Your task to perform on an android device: turn on priority inbox in the gmail app Image 0: 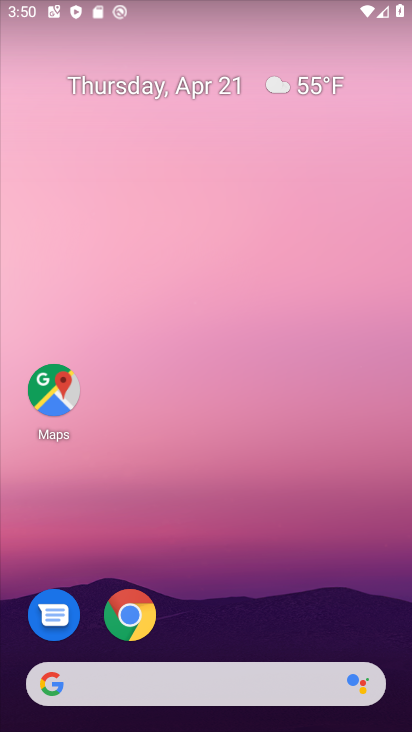
Step 0: drag from (231, 543) to (115, 11)
Your task to perform on an android device: turn on priority inbox in the gmail app Image 1: 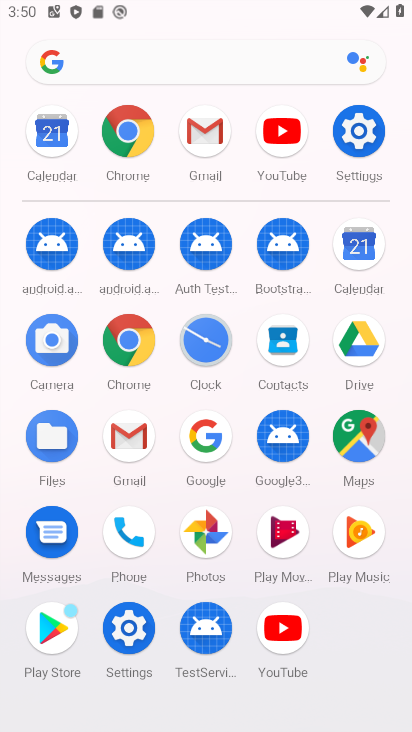
Step 1: click (205, 124)
Your task to perform on an android device: turn on priority inbox in the gmail app Image 2: 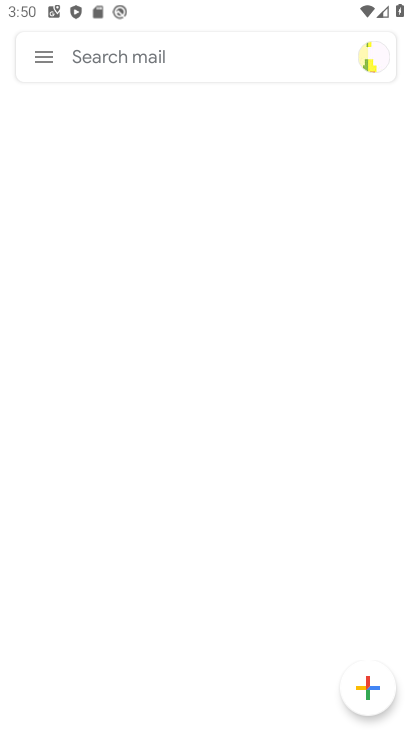
Step 2: click (43, 60)
Your task to perform on an android device: turn on priority inbox in the gmail app Image 3: 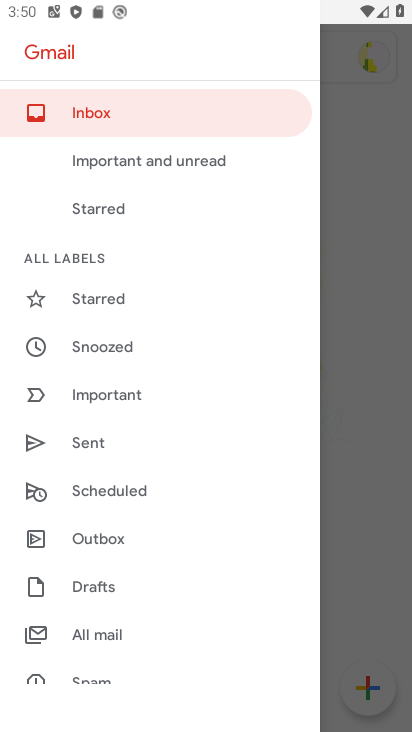
Step 3: drag from (196, 384) to (197, 107)
Your task to perform on an android device: turn on priority inbox in the gmail app Image 4: 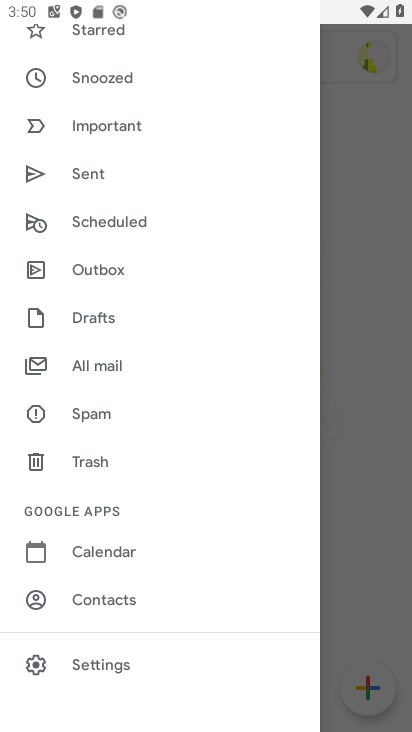
Step 4: drag from (138, 598) to (160, 206)
Your task to perform on an android device: turn on priority inbox in the gmail app Image 5: 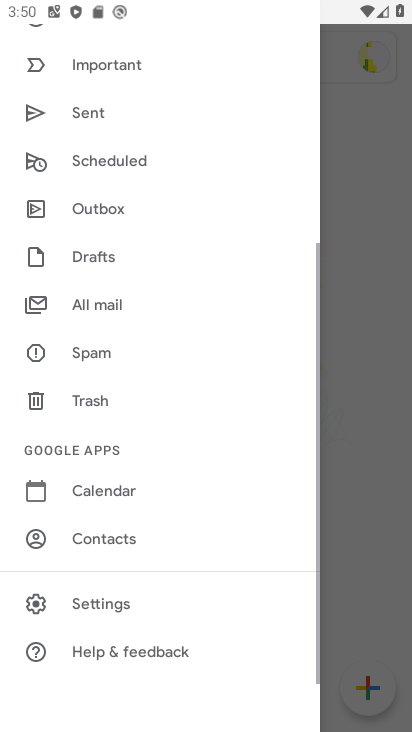
Step 5: click (92, 593)
Your task to perform on an android device: turn on priority inbox in the gmail app Image 6: 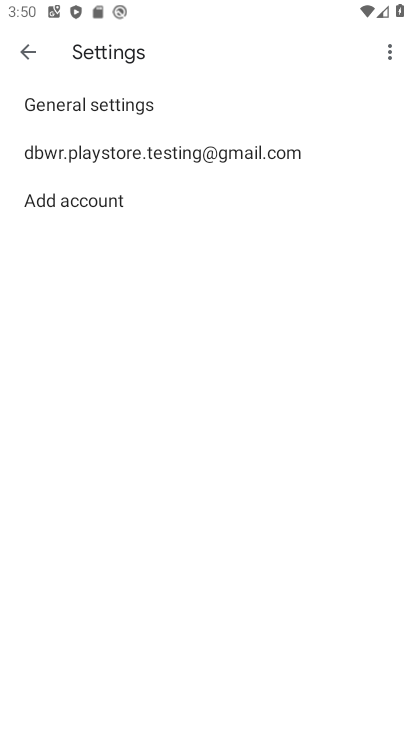
Step 6: click (148, 154)
Your task to perform on an android device: turn on priority inbox in the gmail app Image 7: 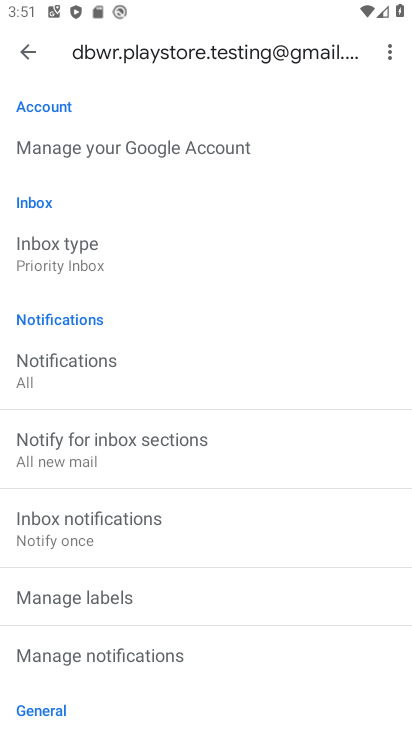
Step 7: task complete